Your task to perform on an android device: Open Chrome and go to settings Image 0: 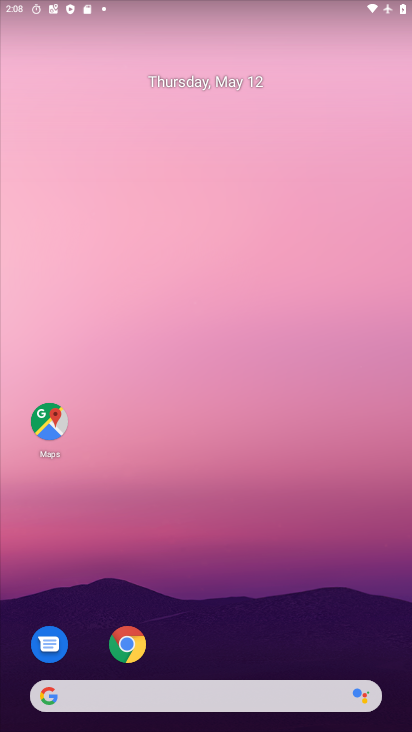
Step 0: click (124, 637)
Your task to perform on an android device: Open Chrome and go to settings Image 1: 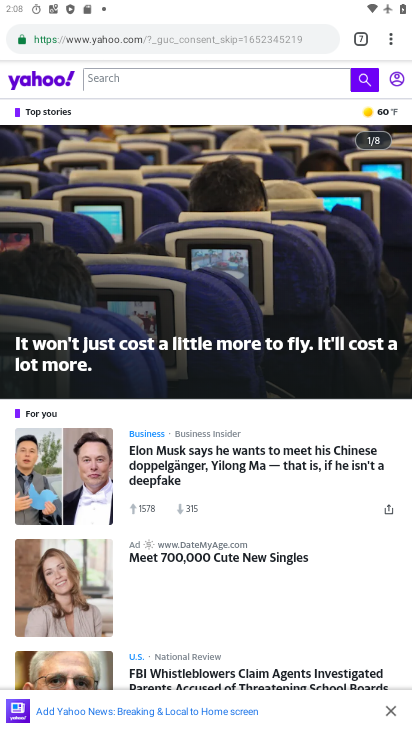
Step 1: click (360, 34)
Your task to perform on an android device: Open Chrome and go to settings Image 2: 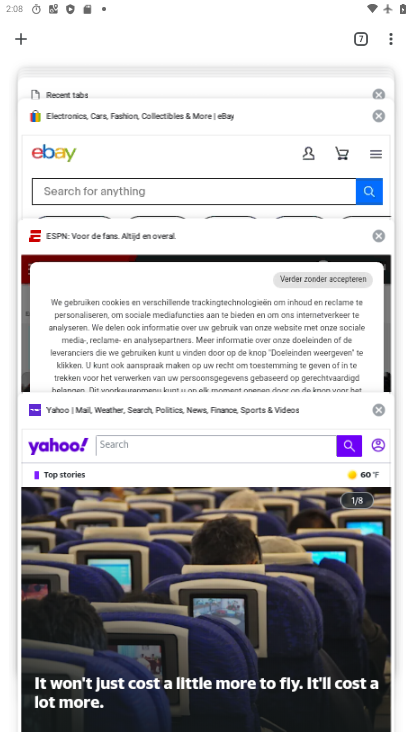
Step 2: click (393, 33)
Your task to perform on an android device: Open Chrome and go to settings Image 3: 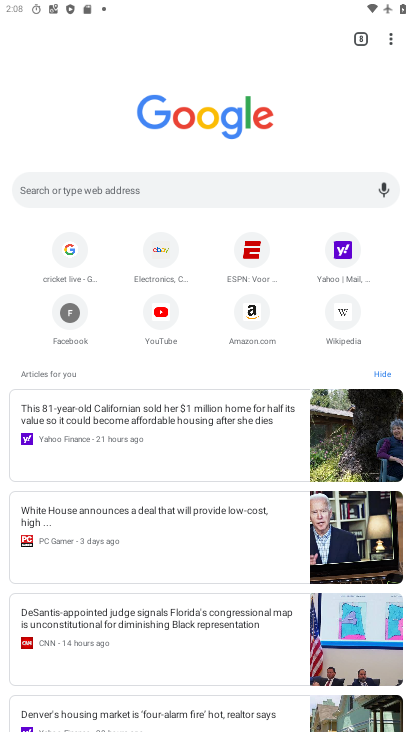
Step 3: click (388, 35)
Your task to perform on an android device: Open Chrome and go to settings Image 4: 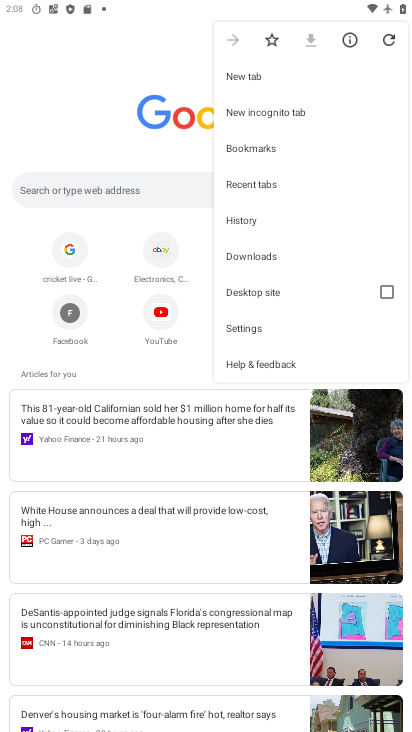
Step 4: click (256, 325)
Your task to perform on an android device: Open Chrome and go to settings Image 5: 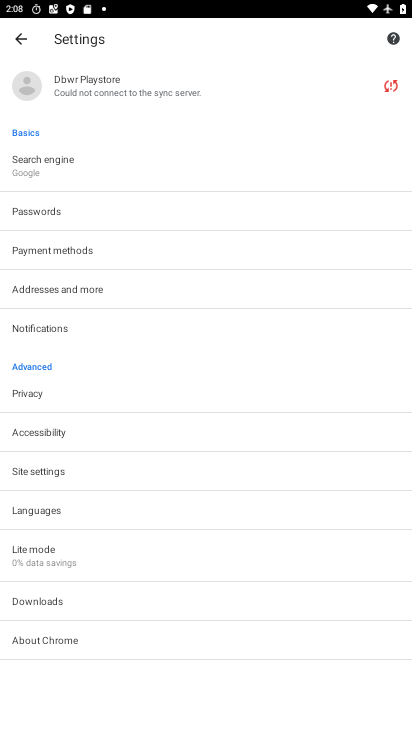
Step 5: task complete